Your task to perform on an android device: check data usage Image 0: 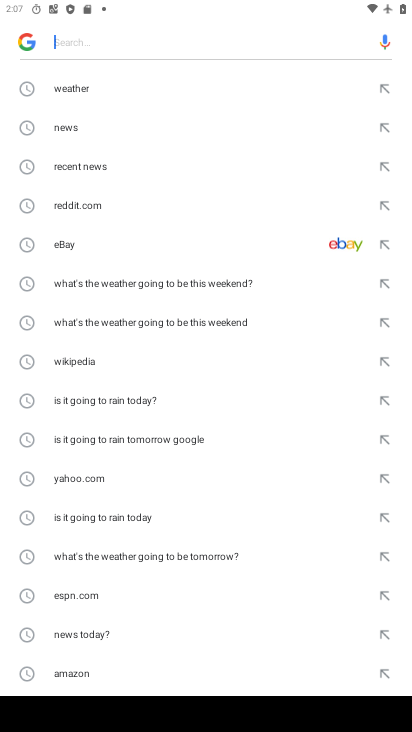
Step 0: press home button
Your task to perform on an android device: check data usage Image 1: 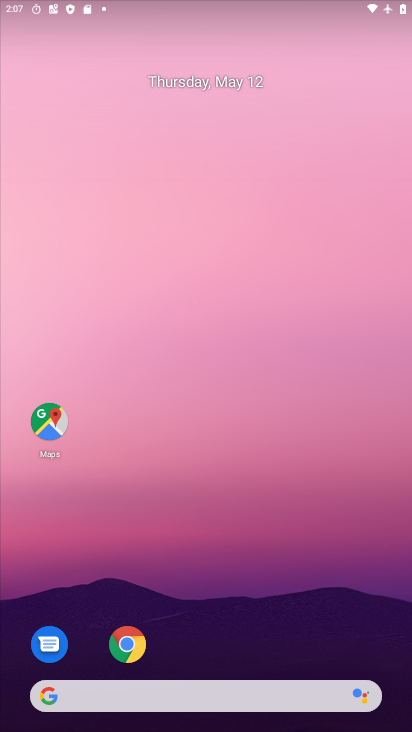
Step 1: drag from (263, 554) to (216, 3)
Your task to perform on an android device: check data usage Image 2: 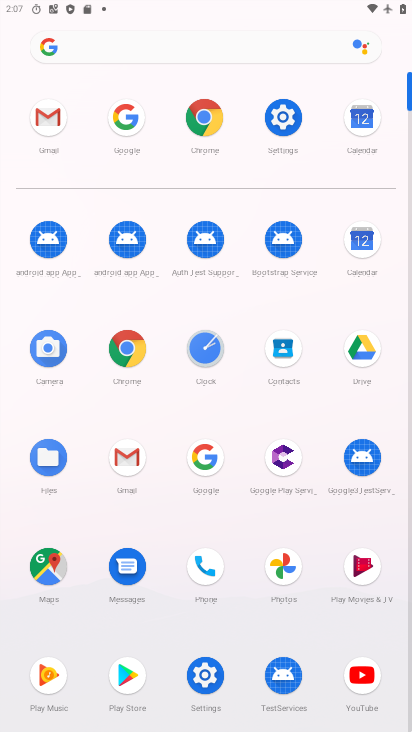
Step 2: click (286, 117)
Your task to perform on an android device: check data usage Image 3: 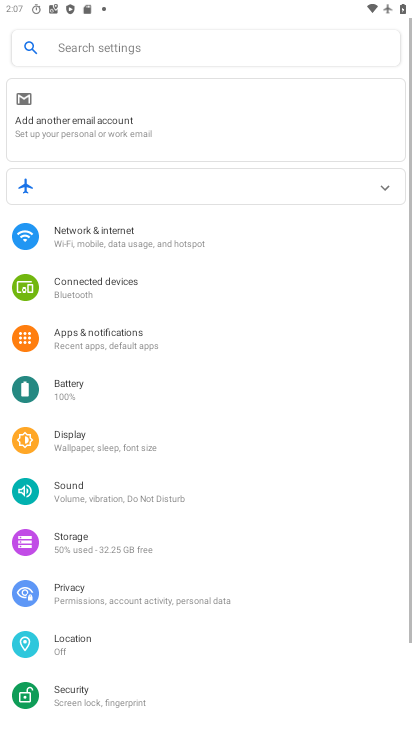
Step 3: click (135, 234)
Your task to perform on an android device: check data usage Image 4: 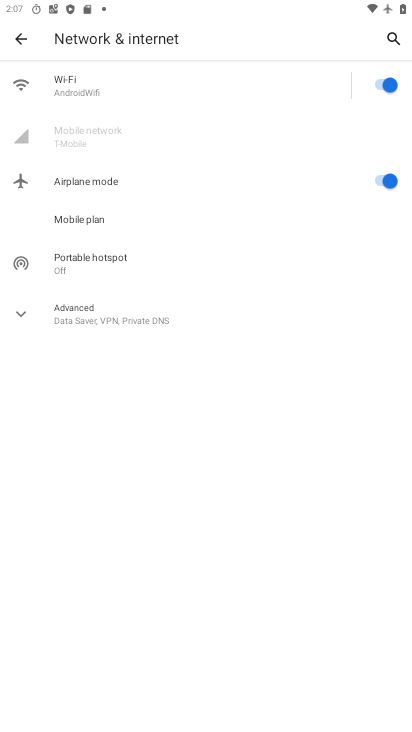
Step 4: click (109, 133)
Your task to perform on an android device: check data usage Image 5: 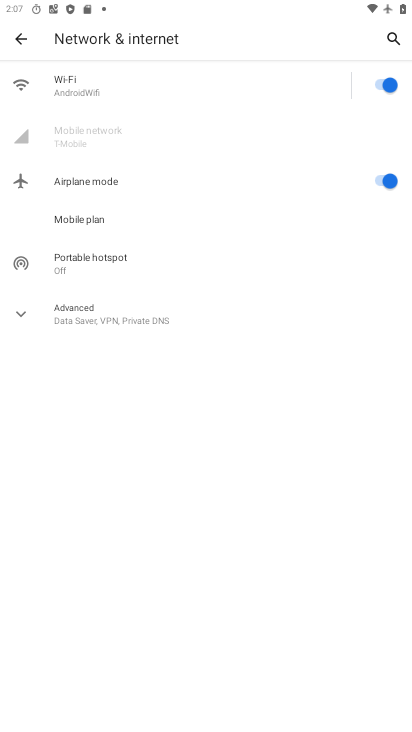
Step 5: task complete